Your task to perform on an android device: find photos in the google photos app Image 0: 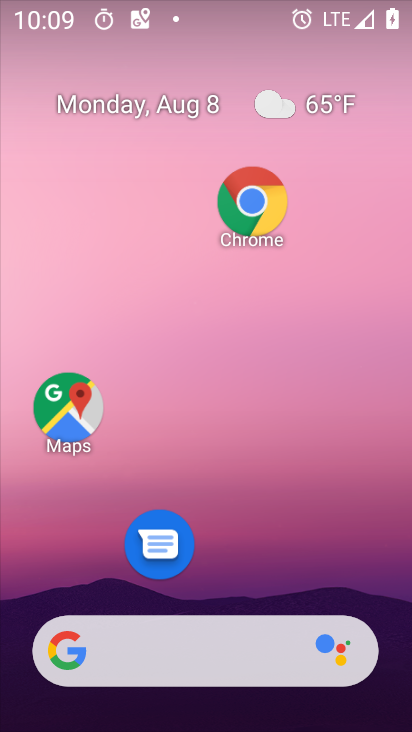
Step 0: drag from (227, 569) to (233, 76)
Your task to perform on an android device: find photos in the google photos app Image 1: 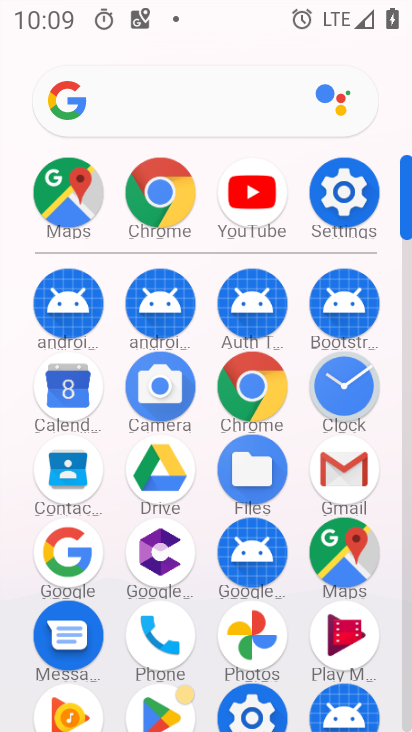
Step 1: click (253, 628)
Your task to perform on an android device: find photos in the google photos app Image 2: 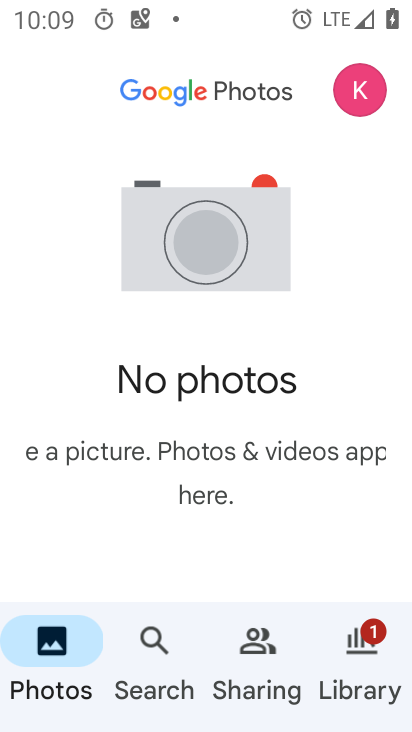
Step 2: task complete